Your task to perform on an android device: Go to Android settings Image 0: 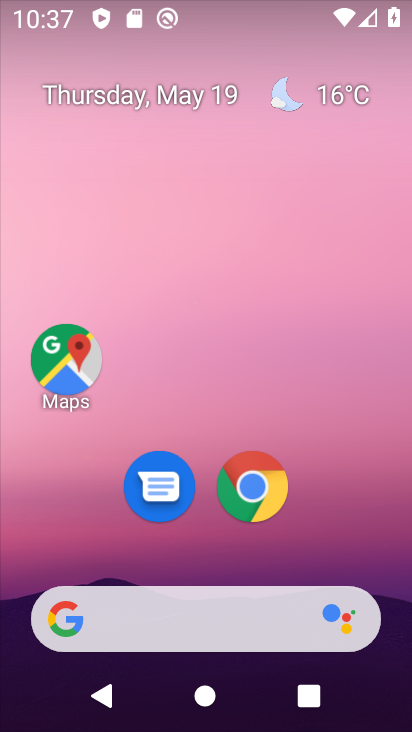
Step 0: drag from (356, 548) to (293, 63)
Your task to perform on an android device: Go to Android settings Image 1: 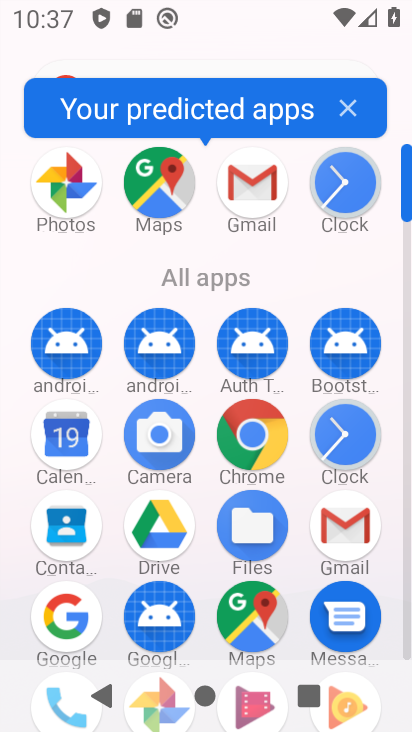
Step 1: drag from (240, 560) to (237, 216)
Your task to perform on an android device: Go to Android settings Image 2: 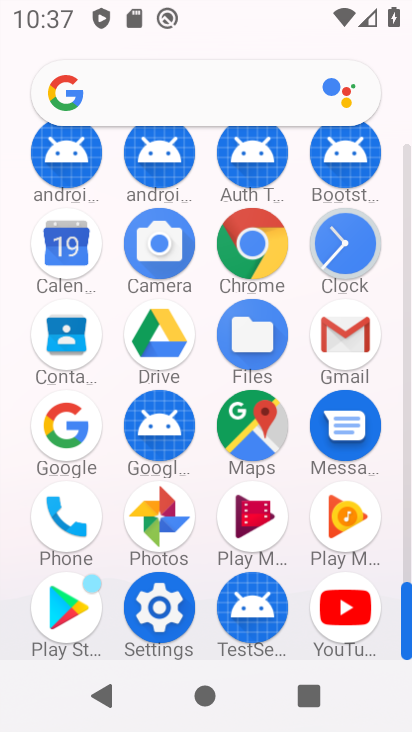
Step 2: click (167, 635)
Your task to perform on an android device: Go to Android settings Image 3: 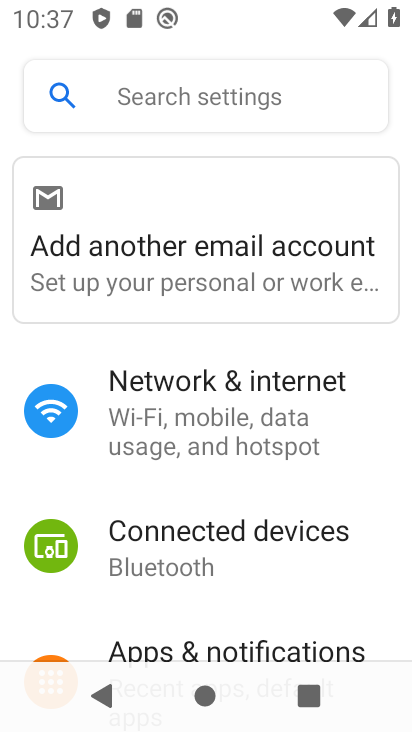
Step 3: task complete